Your task to perform on an android device: Open sound settings Image 0: 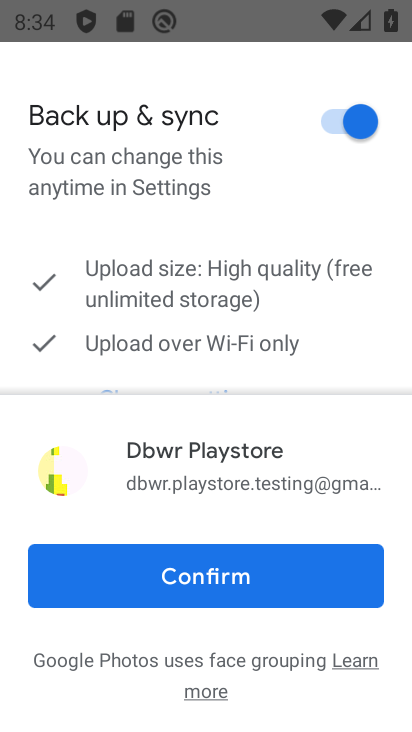
Step 0: press home button
Your task to perform on an android device: Open sound settings Image 1: 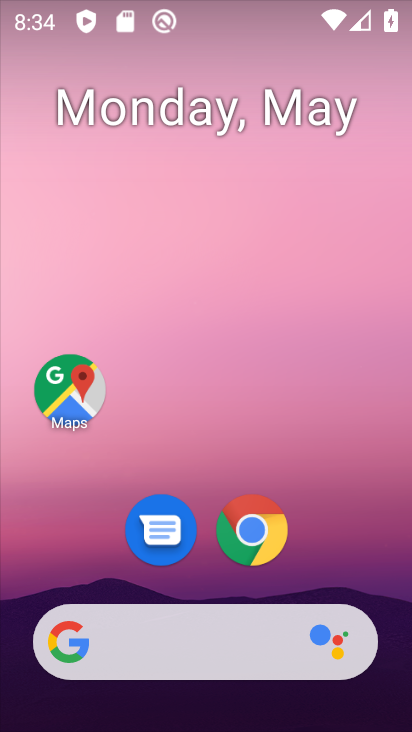
Step 1: drag from (170, 621) to (135, 71)
Your task to perform on an android device: Open sound settings Image 2: 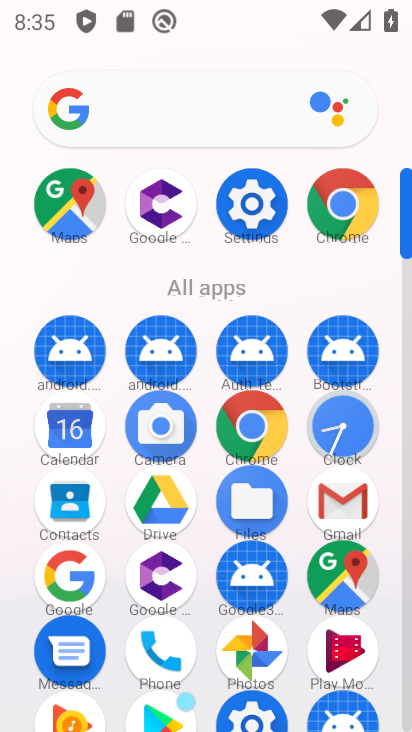
Step 2: click (237, 228)
Your task to perform on an android device: Open sound settings Image 3: 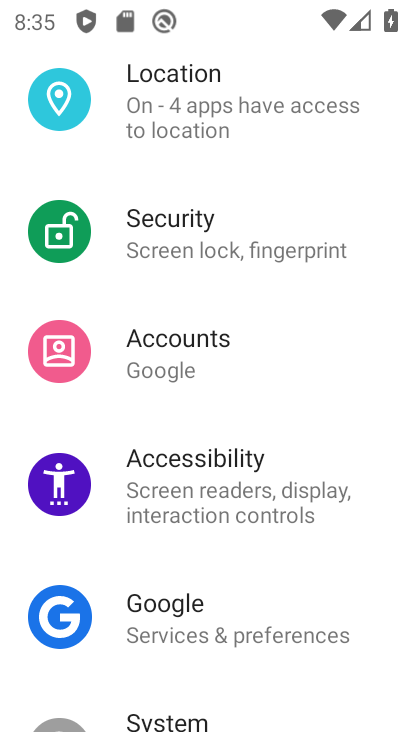
Step 3: drag from (193, 184) to (151, 666)
Your task to perform on an android device: Open sound settings Image 4: 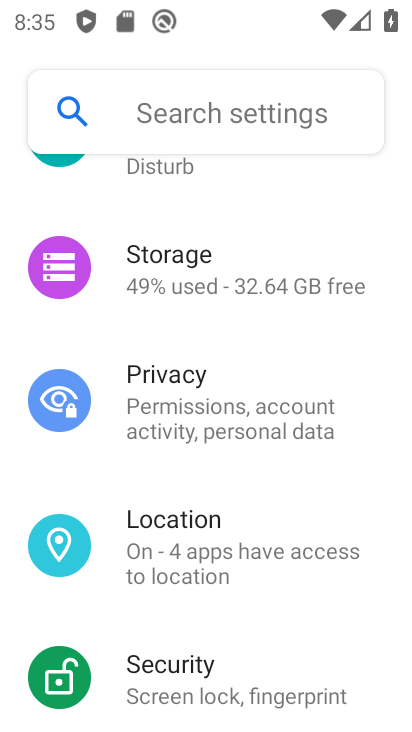
Step 4: drag from (153, 173) to (221, 373)
Your task to perform on an android device: Open sound settings Image 5: 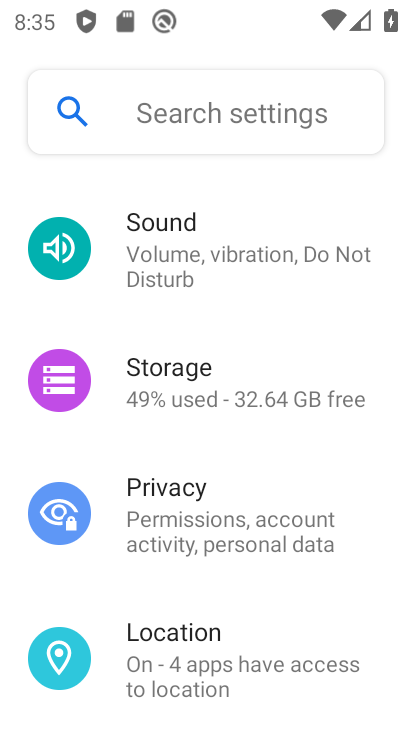
Step 5: click (192, 252)
Your task to perform on an android device: Open sound settings Image 6: 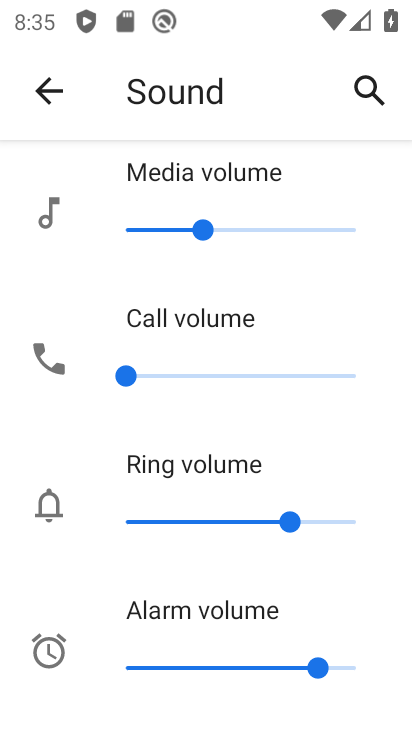
Step 6: task complete